Your task to perform on an android device: toggle improve location accuracy Image 0: 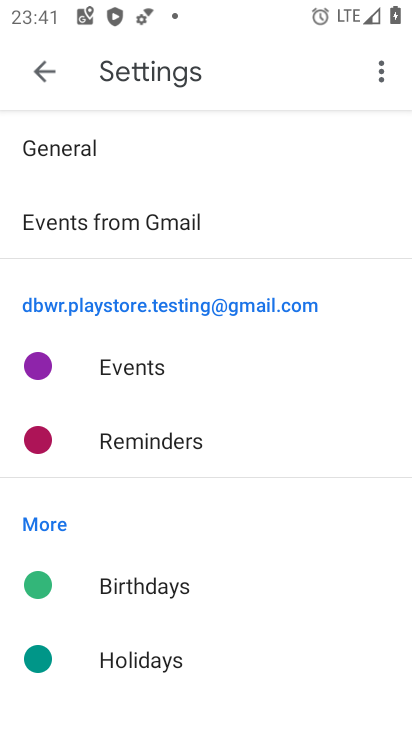
Step 0: press home button
Your task to perform on an android device: toggle improve location accuracy Image 1: 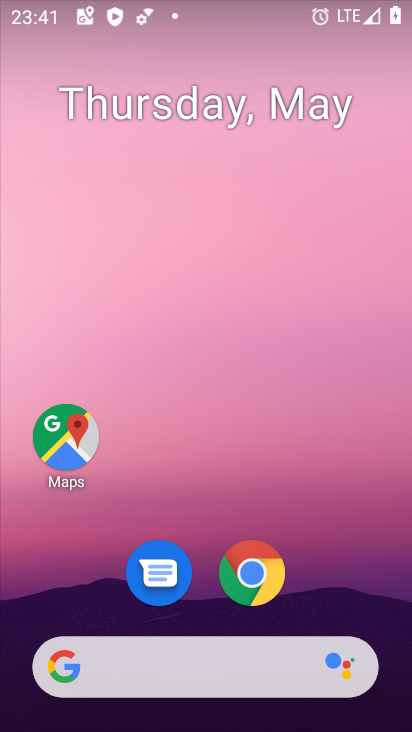
Step 1: click (254, 577)
Your task to perform on an android device: toggle improve location accuracy Image 2: 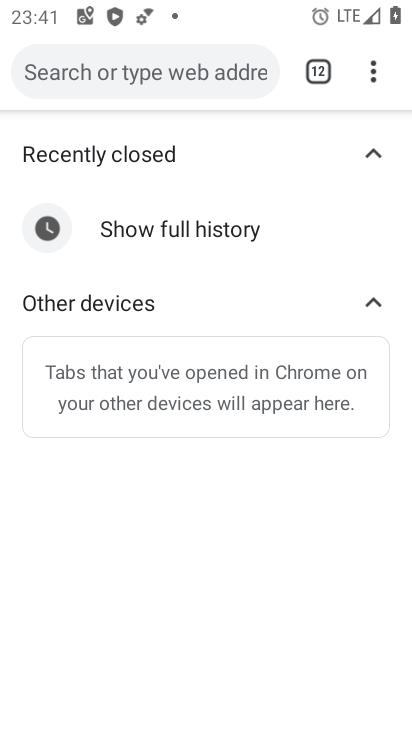
Step 2: press home button
Your task to perform on an android device: toggle improve location accuracy Image 3: 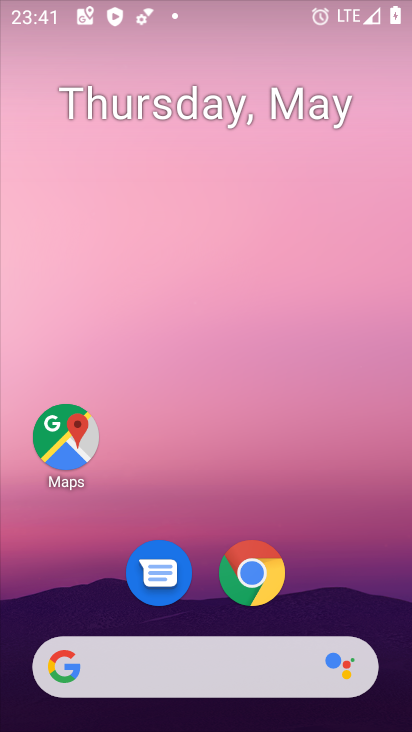
Step 3: drag from (177, 606) to (172, 316)
Your task to perform on an android device: toggle improve location accuracy Image 4: 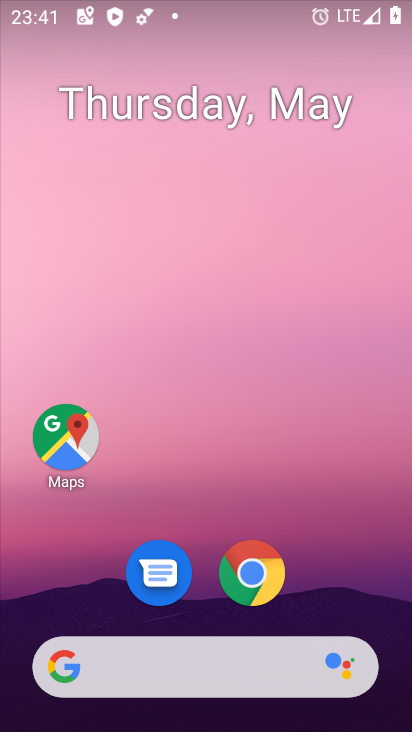
Step 4: drag from (204, 600) to (142, 117)
Your task to perform on an android device: toggle improve location accuracy Image 5: 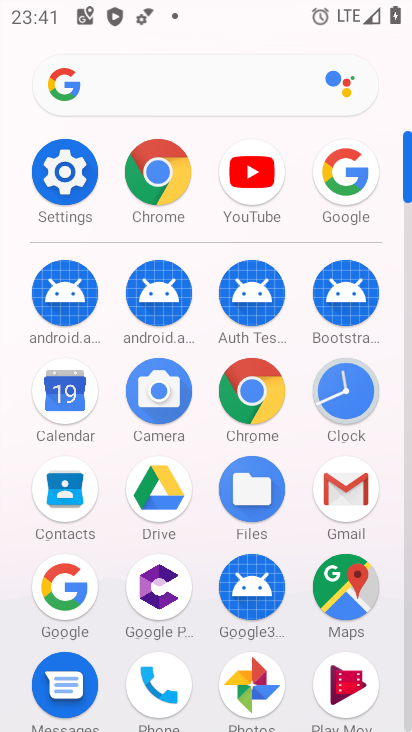
Step 5: click (77, 185)
Your task to perform on an android device: toggle improve location accuracy Image 6: 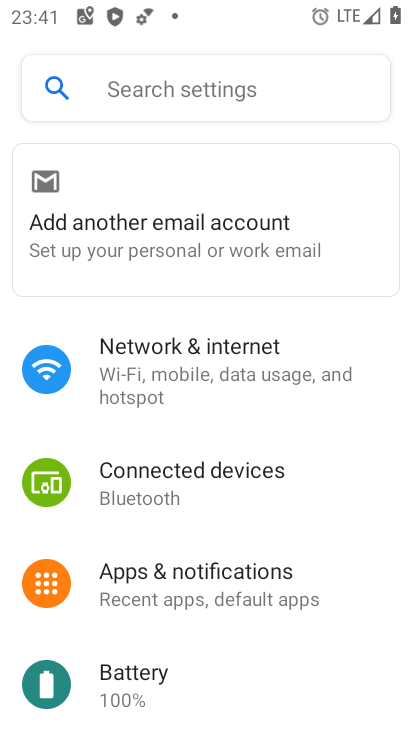
Step 6: drag from (249, 631) to (248, 244)
Your task to perform on an android device: toggle improve location accuracy Image 7: 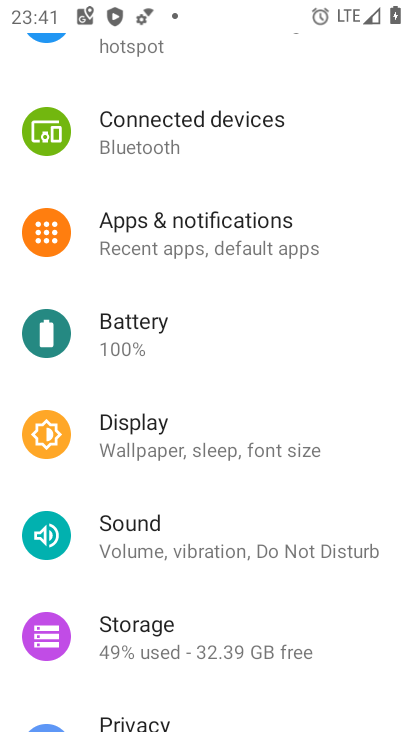
Step 7: drag from (212, 630) to (187, 314)
Your task to perform on an android device: toggle improve location accuracy Image 8: 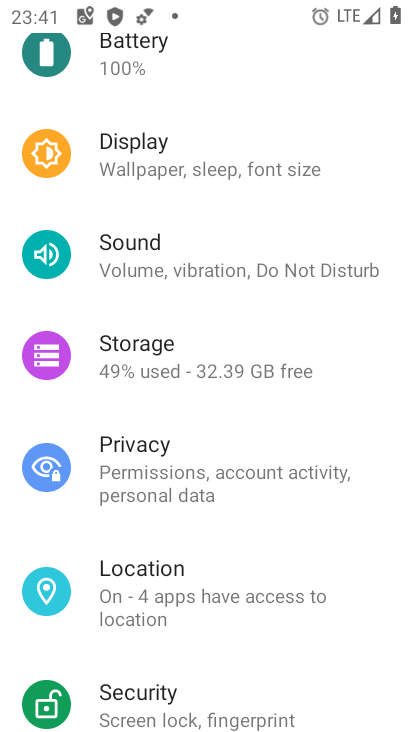
Step 8: click (184, 560)
Your task to perform on an android device: toggle improve location accuracy Image 9: 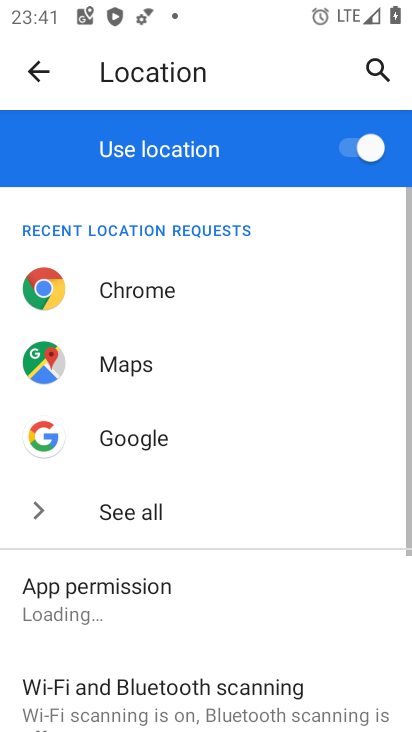
Step 9: drag from (218, 644) to (203, 253)
Your task to perform on an android device: toggle improve location accuracy Image 10: 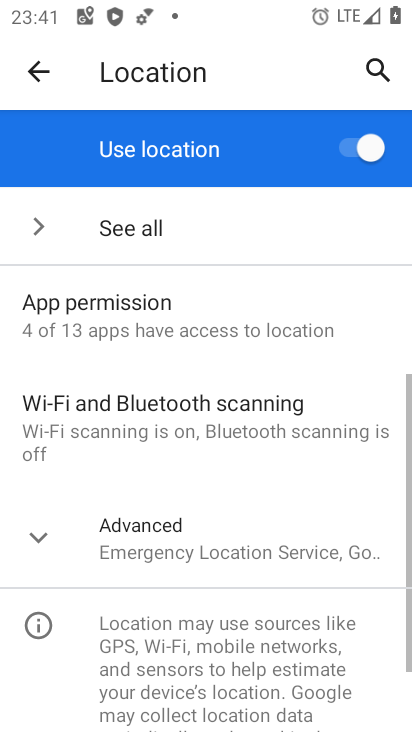
Step 10: click (203, 544)
Your task to perform on an android device: toggle improve location accuracy Image 11: 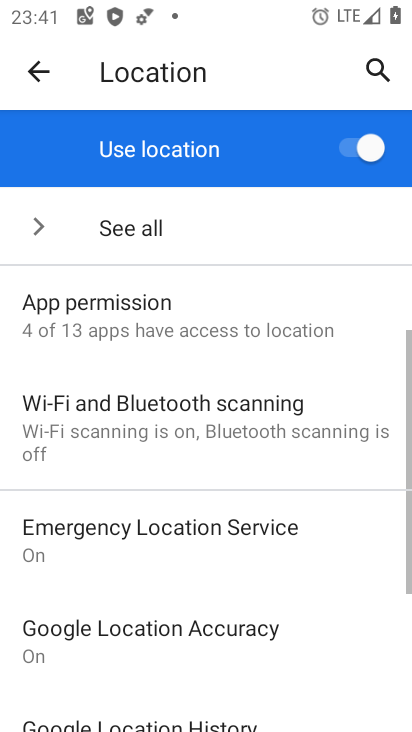
Step 11: drag from (215, 620) to (230, 368)
Your task to perform on an android device: toggle improve location accuracy Image 12: 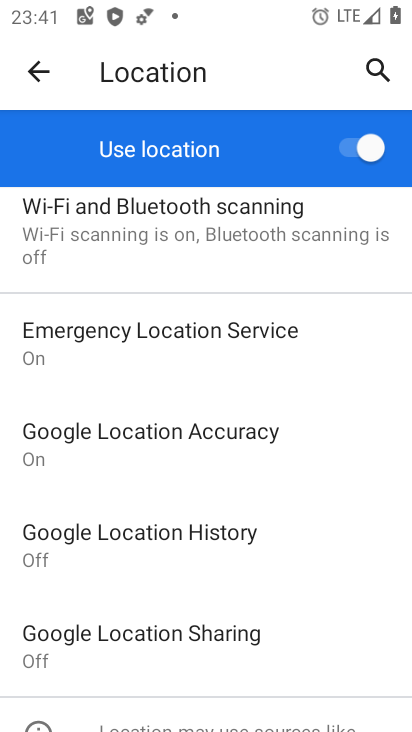
Step 12: click (219, 451)
Your task to perform on an android device: toggle improve location accuracy Image 13: 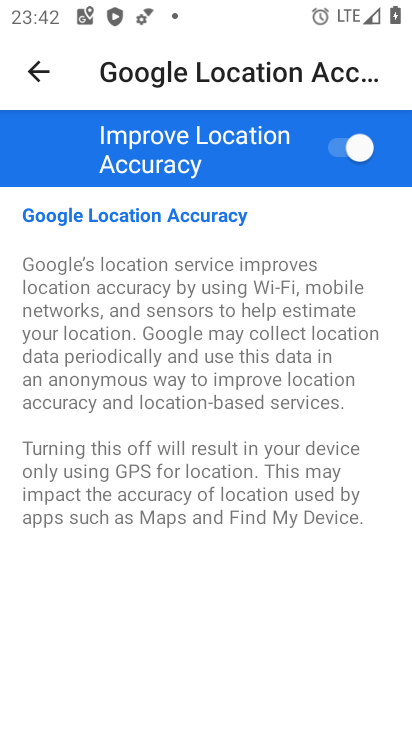
Step 13: click (335, 151)
Your task to perform on an android device: toggle improve location accuracy Image 14: 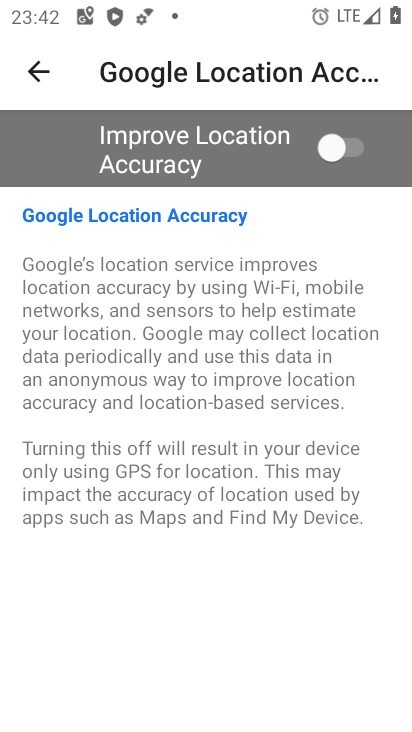
Step 14: task complete